Your task to perform on an android device: Clear the shopping cart on amazon. Search for logitech g502 on amazon, select the first entry, add it to the cart, then select checkout. Image 0: 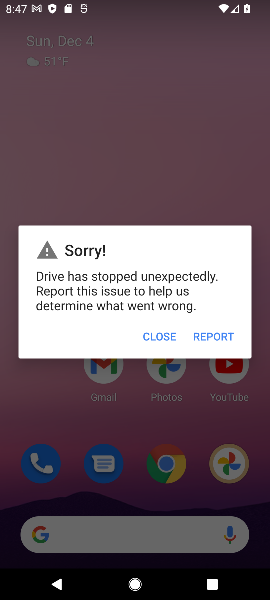
Step 0: click (173, 341)
Your task to perform on an android device: Clear the shopping cart on amazon. Search for logitech g502 on amazon, select the first entry, add it to the cart, then select checkout. Image 1: 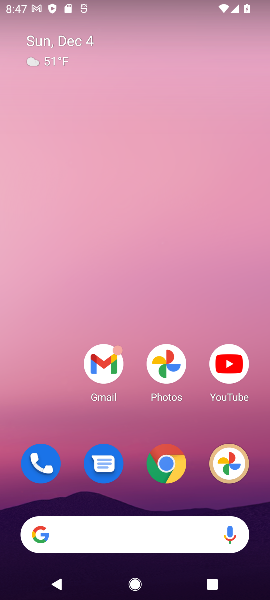
Step 1: click (139, 549)
Your task to perform on an android device: Clear the shopping cart on amazon. Search for logitech g502 on amazon, select the first entry, add it to the cart, then select checkout. Image 2: 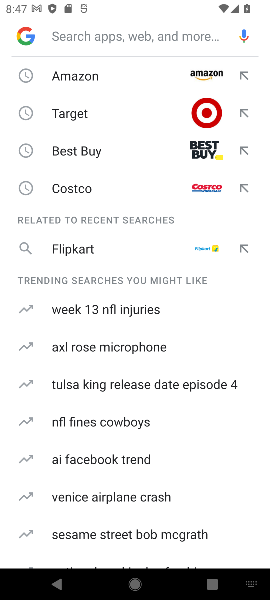
Step 2: type "ama "
Your task to perform on an android device: Clear the shopping cart on amazon. Search for logitech g502 on amazon, select the first entry, add it to the cart, then select checkout. Image 3: 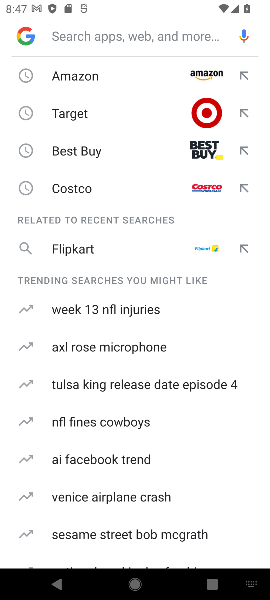
Step 3: click (130, 75)
Your task to perform on an android device: Clear the shopping cart on amazon. Search for logitech g502 on amazon, select the first entry, add it to the cart, then select checkout. Image 4: 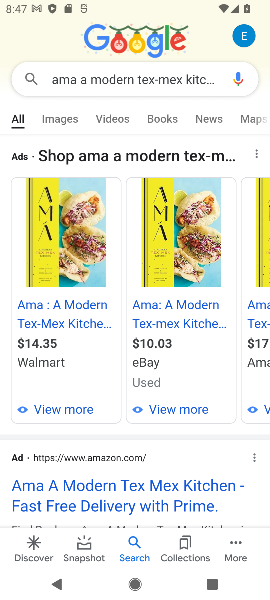
Step 4: task complete